Your task to perform on an android device: Open battery settings Image 0: 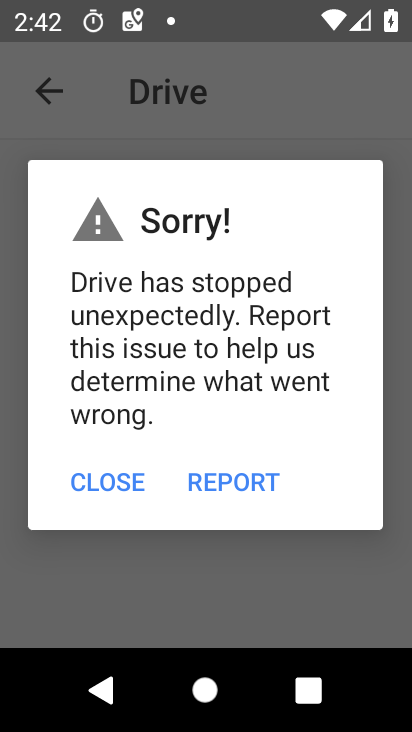
Step 0: click (98, 473)
Your task to perform on an android device: Open battery settings Image 1: 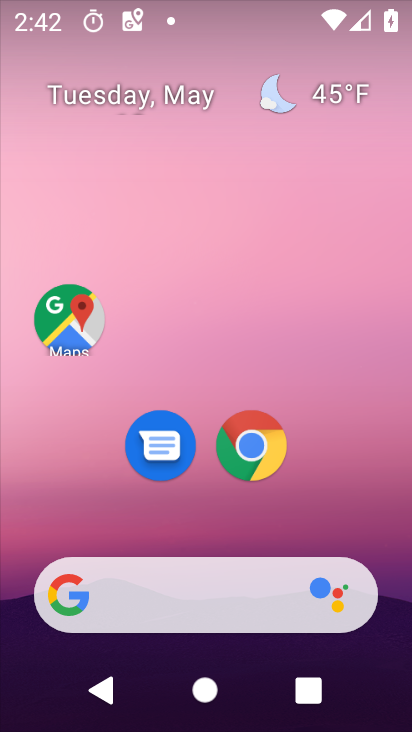
Step 1: drag from (195, 488) to (317, 45)
Your task to perform on an android device: Open battery settings Image 2: 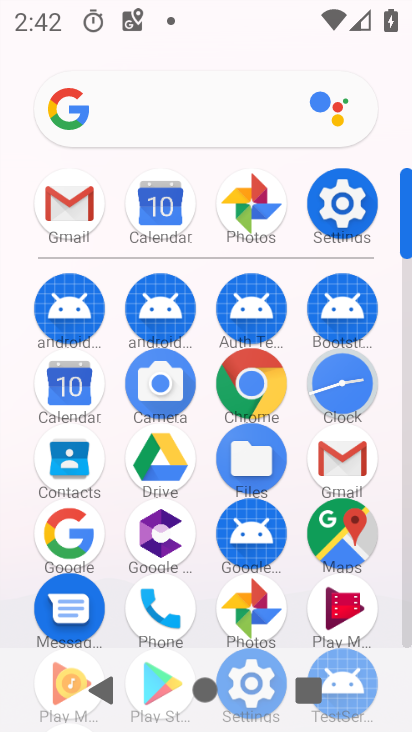
Step 2: click (359, 203)
Your task to perform on an android device: Open battery settings Image 3: 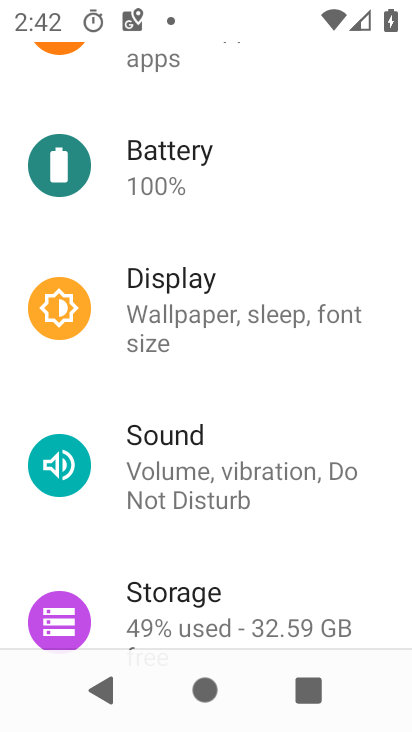
Step 3: click (186, 155)
Your task to perform on an android device: Open battery settings Image 4: 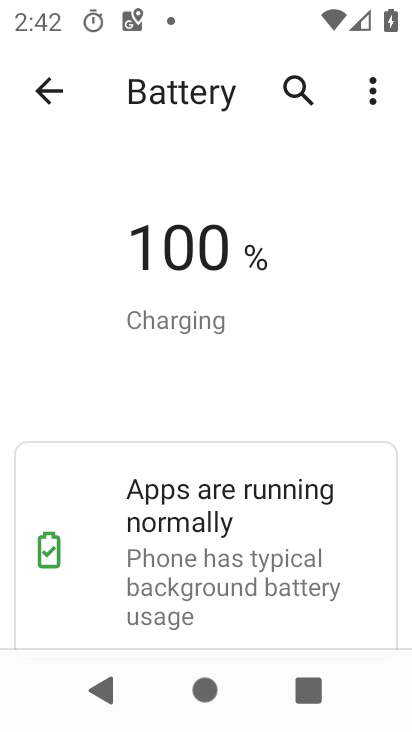
Step 4: task complete